Your task to perform on an android device: Search for seafood restaurants on Google Maps Image 0: 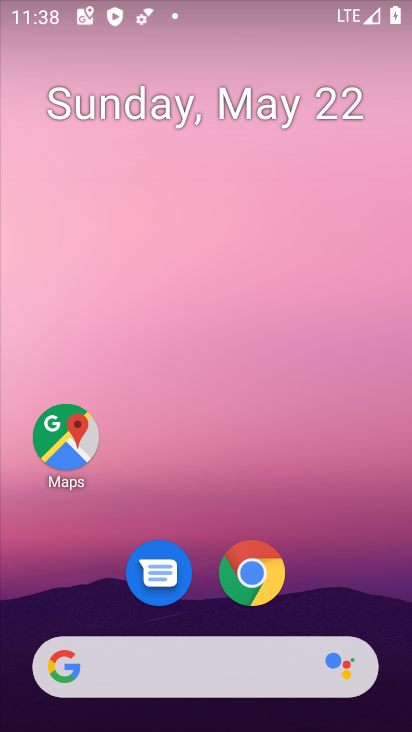
Step 0: drag from (324, 605) to (284, 25)
Your task to perform on an android device: Search for seafood restaurants on Google Maps Image 1: 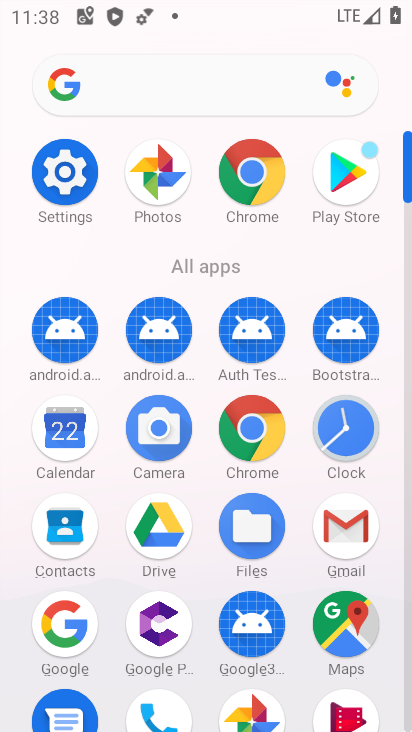
Step 1: click (348, 600)
Your task to perform on an android device: Search for seafood restaurants on Google Maps Image 2: 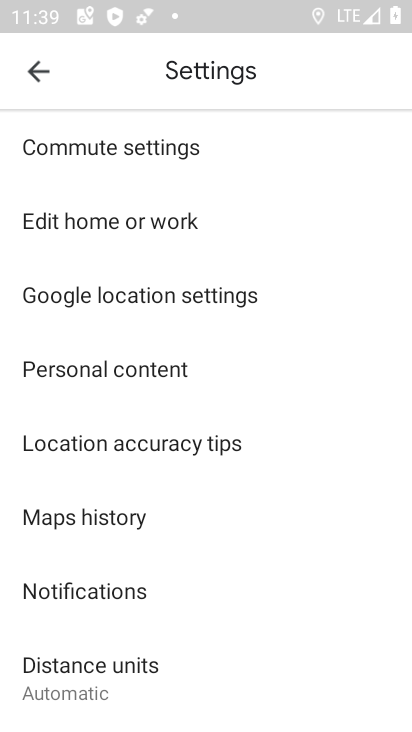
Step 2: click (35, 73)
Your task to perform on an android device: Search for seafood restaurants on Google Maps Image 3: 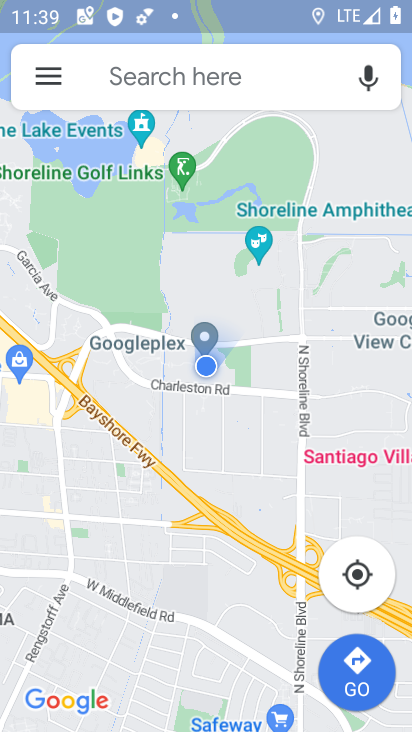
Step 3: click (170, 90)
Your task to perform on an android device: Search for seafood restaurants on Google Maps Image 4: 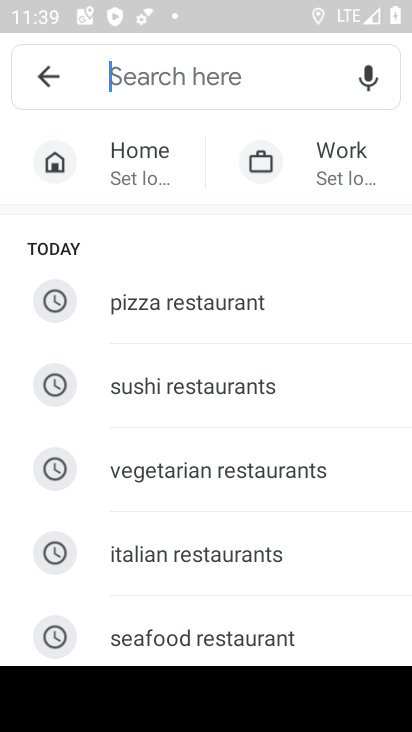
Step 4: type "seafood restaurants"
Your task to perform on an android device: Search for seafood restaurants on Google Maps Image 5: 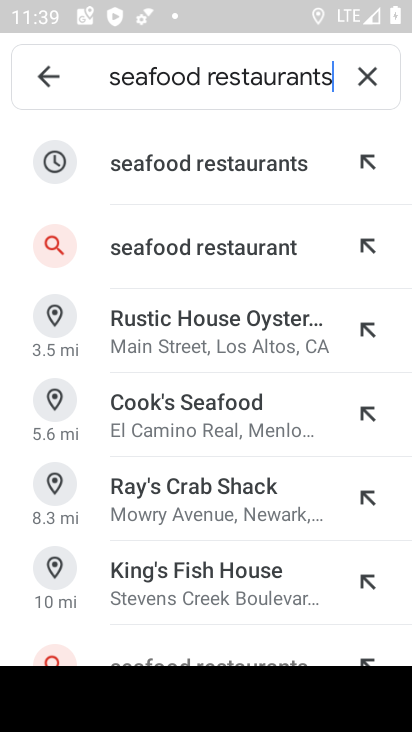
Step 5: click (196, 175)
Your task to perform on an android device: Search for seafood restaurants on Google Maps Image 6: 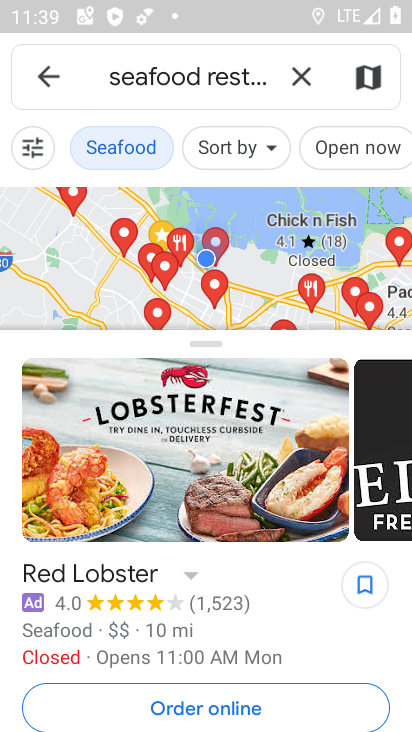
Step 6: task complete